Your task to perform on an android device: turn on wifi Image 0: 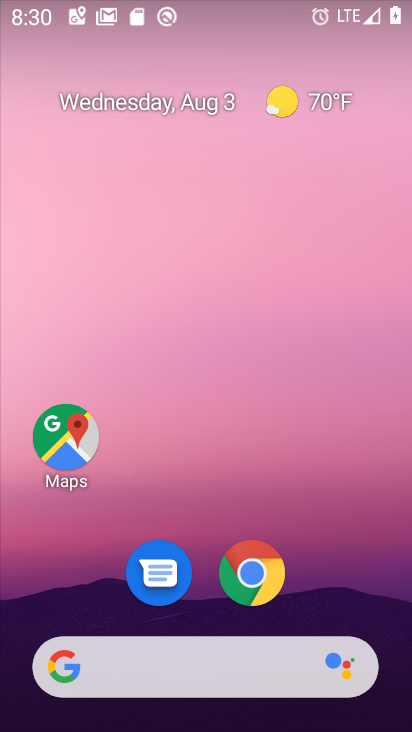
Step 0: drag from (315, 619) to (325, 1)
Your task to perform on an android device: turn on wifi Image 1: 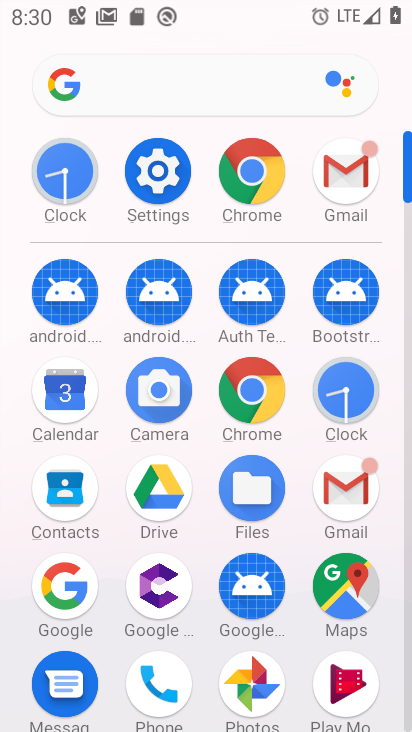
Step 1: click (154, 178)
Your task to perform on an android device: turn on wifi Image 2: 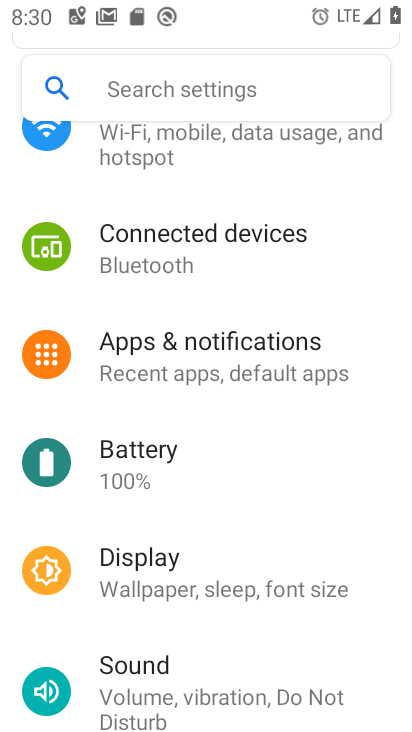
Step 2: click (159, 150)
Your task to perform on an android device: turn on wifi Image 3: 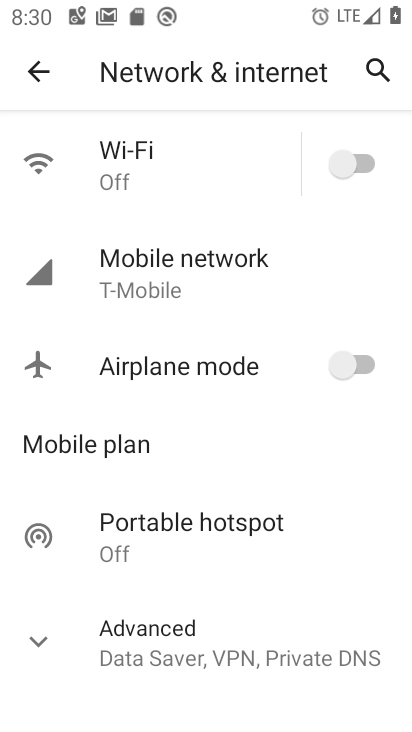
Step 3: click (359, 170)
Your task to perform on an android device: turn on wifi Image 4: 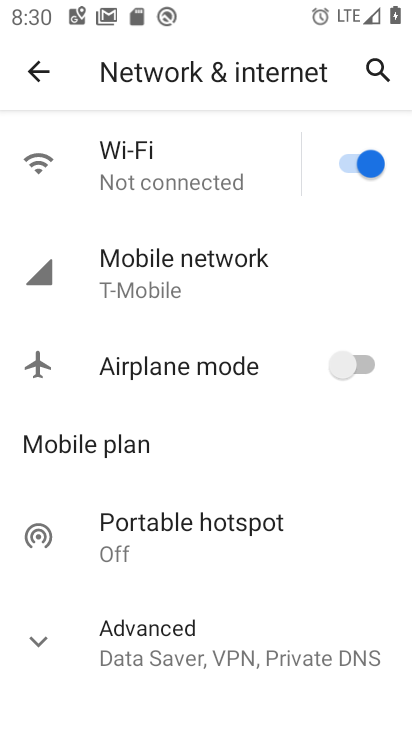
Step 4: task complete